Your task to perform on an android device: turn on priority inbox in the gmail app Image 0: 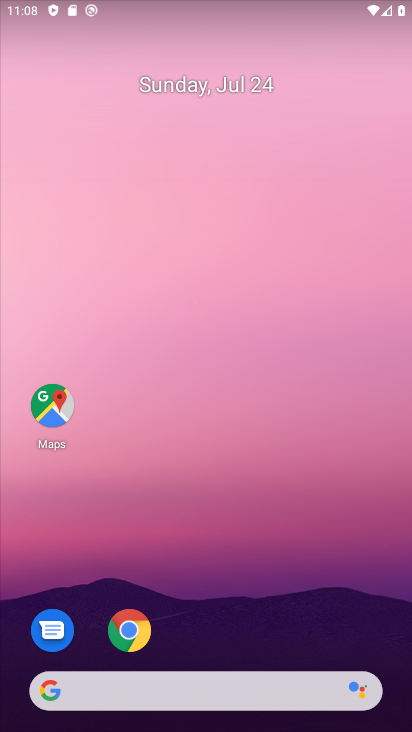
Step 0: drag from (180, 617) to (165, 167)
Your task to perform on an android device: turn on priority inbox in the gmail app Image 1: 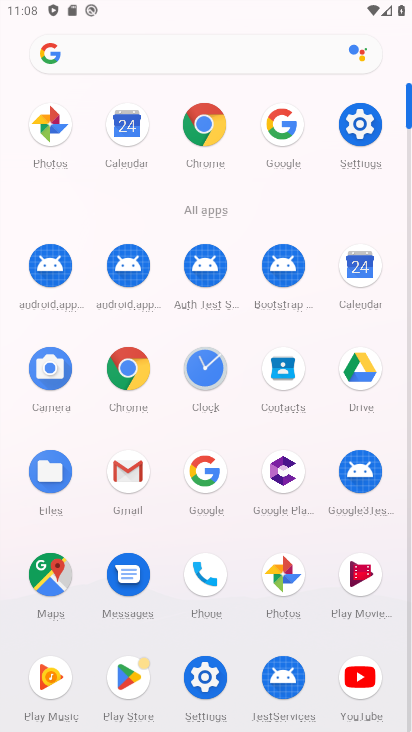
Step 1: click (128, 505)
Your task to perform on an android device: turn on priority inbox in the gmail app Image 2: 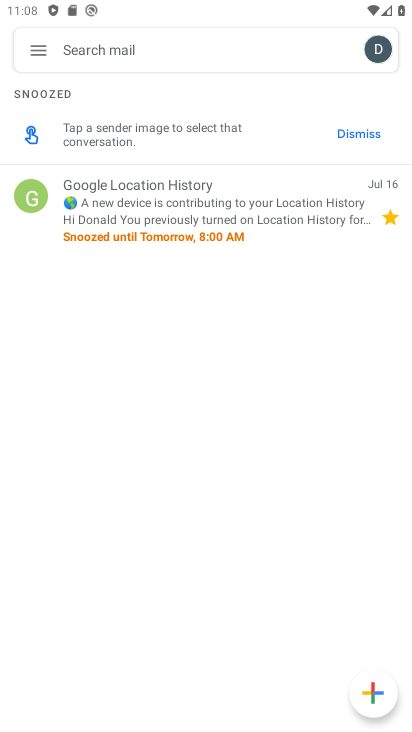
Step 2: click (31, 47)
Your task to perform on an android device: turn on priority inbox in the gmail app Image 3: 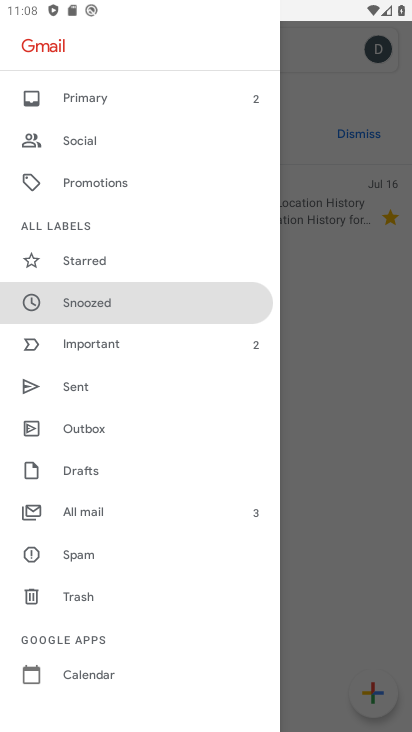
Step 3: drag from (90, 610) to (72, 255)
Your task to perform on an android device: turn on priority inbox in the gmail app Image 4: 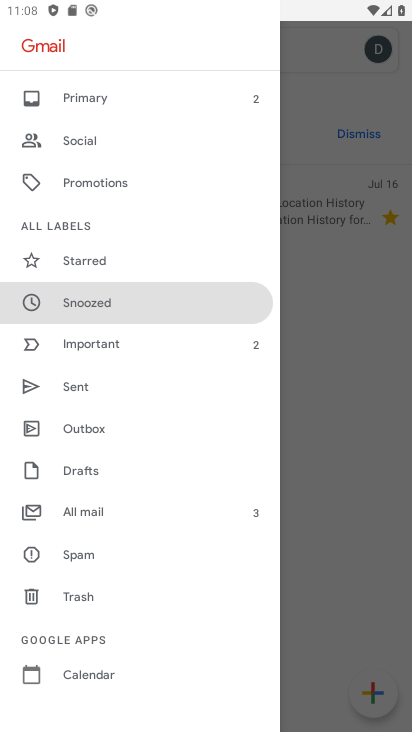
Step 4: drag from (126, 686) to (163, 342)
Your task to perform on an android device: turn on priority inbox in the gmail app Image 5: 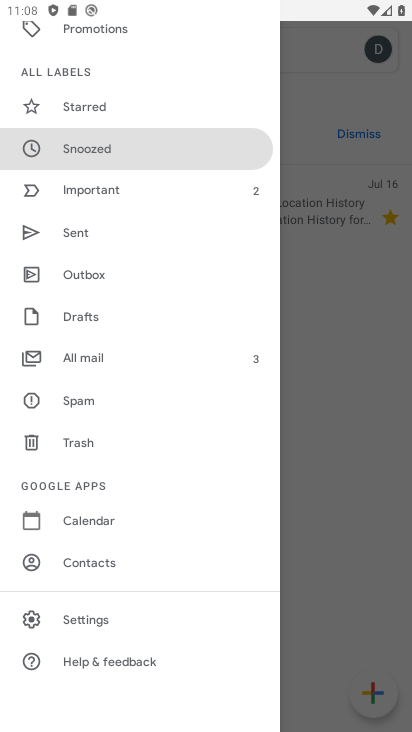
Step 5: click (72, 617)
Your task to perform on an android device: turn on priority inbox in the gmail app Image 6: 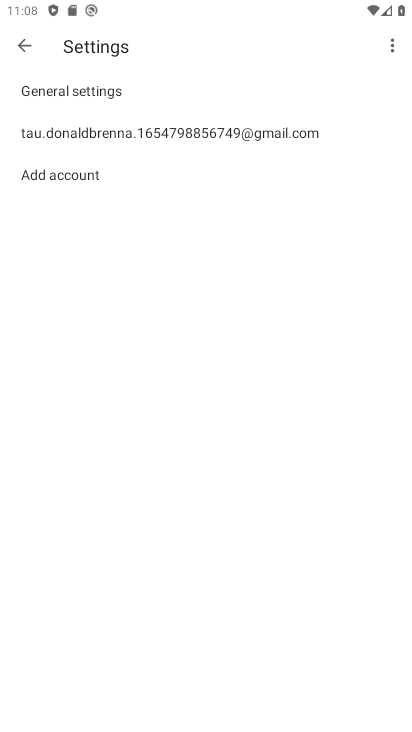
Step 6: click (167, 141)
Your task to perform on an android device: turn on priority inbox in the gmail app Image 7: 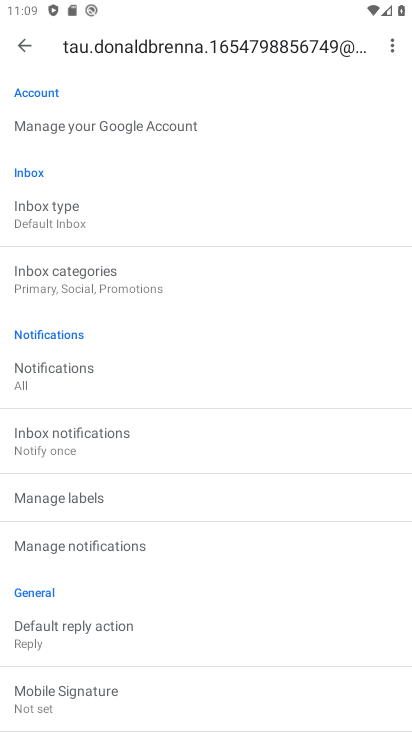
Step 7: drag from (100, 618) to (140, 281)
Your task to perform on an android device: turn on priority inbox in the gmail app Image 8: 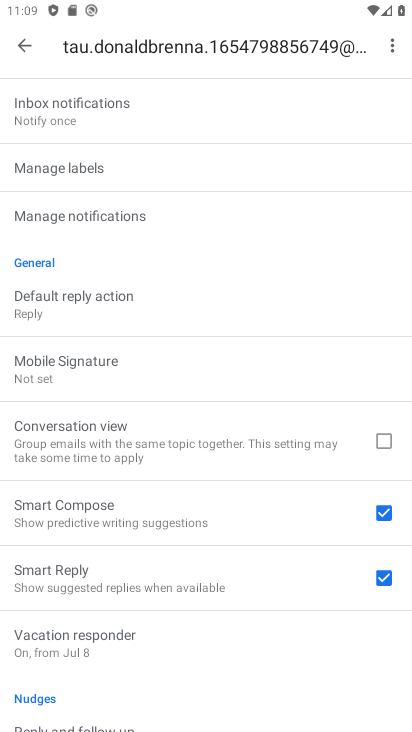
Step 8: drag from (96, 370) to (91, 624)
Your task to perform on an android device: turn on priority inbox in the gmail app Image 9: 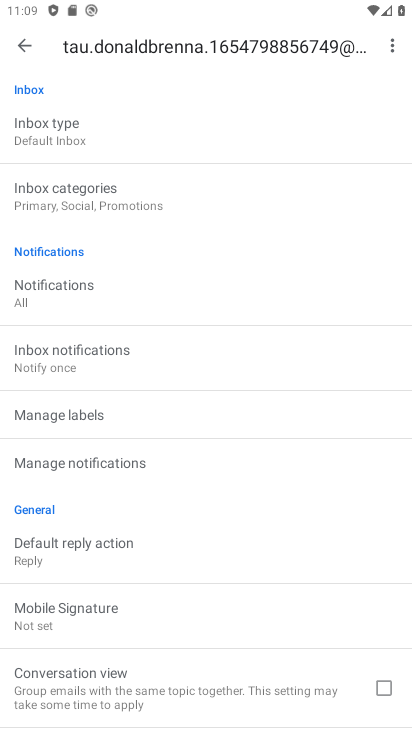
Step 9: click (57, 133)
Your task to perform on an android device: turn on priority inbox in the gmail app Image 10: 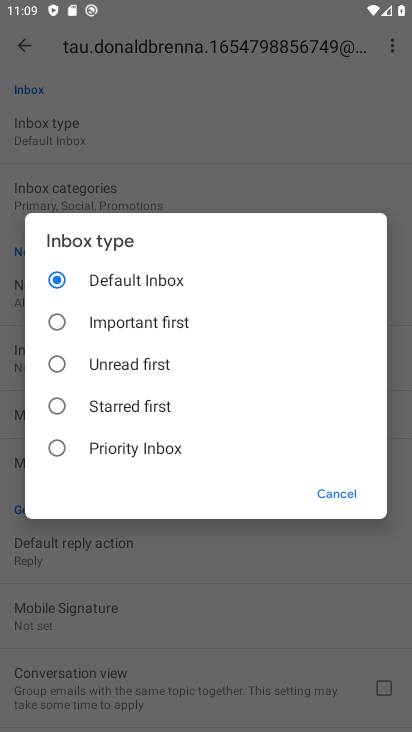
Step 10: click (53, 444)
Your task to perform on an android device: turn on priority inbox in the gmail app Image 11: 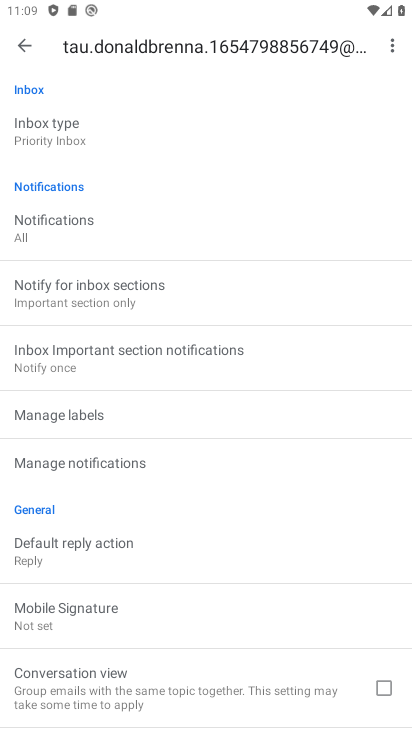
Step 11: task complete